Your task to perform on an android device: Toggle the flashlight Image 0: 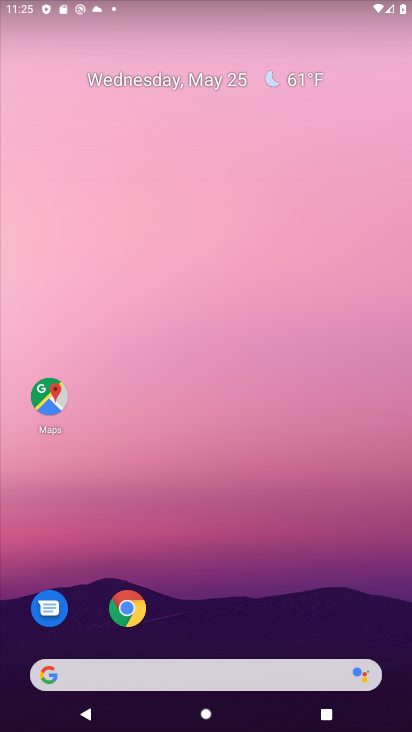
Step 0: drag from (251, 15) to (275, 401)
Your task to perform on an android device: Toggle the flashlight Image 1: 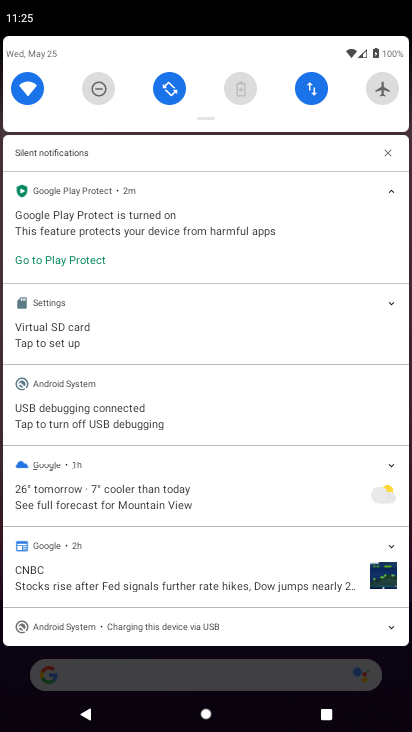
Step 1: drag from (228, 148) to (220, 488)
Your task to perform on an android device: Toggle the flashlight Image 2: 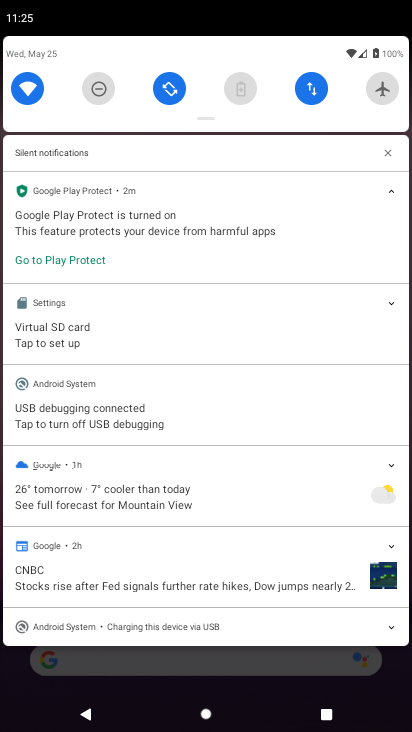
Step 2: drag from (213, 119) to (266, 692)
Your task to perform on an android device: Toggle the flashlight Image 3: 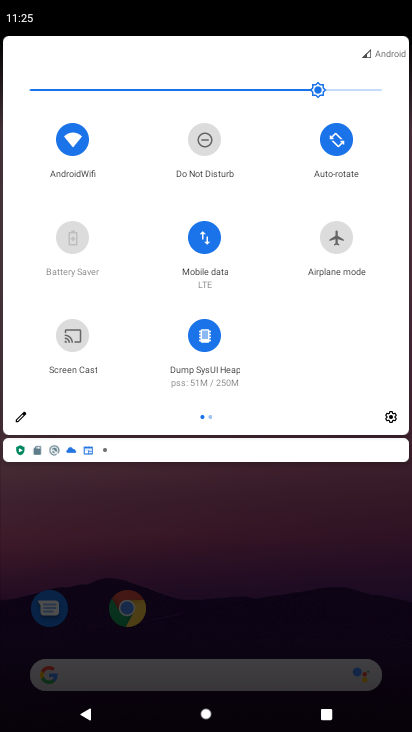
Step 3: click (19, 413)
Your task to perform on an android device: Toggle the flashlight Image 4: 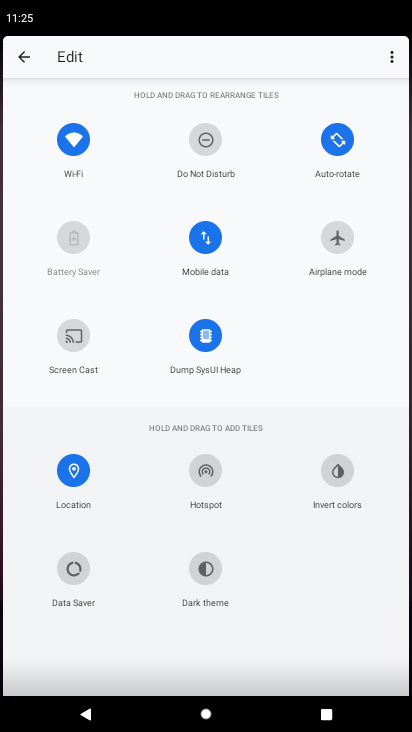
Step 4: task complete